Your task to perform on an android device: stop showing notifications on the lock screen Image 0: 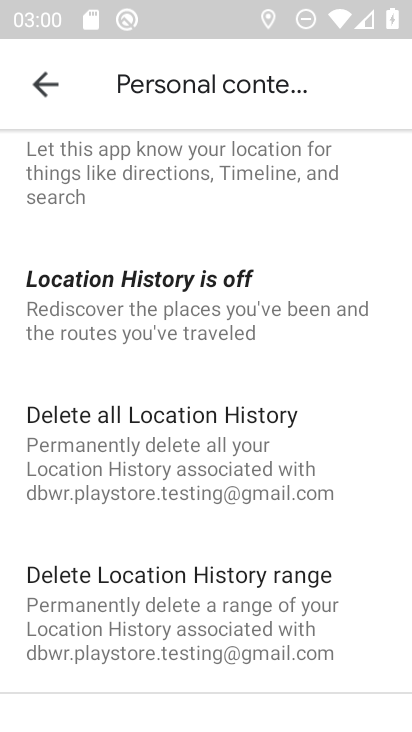
Step 0: press home button
Your task to perform on an android device: stop showing notifications on the lock screen Image 1: 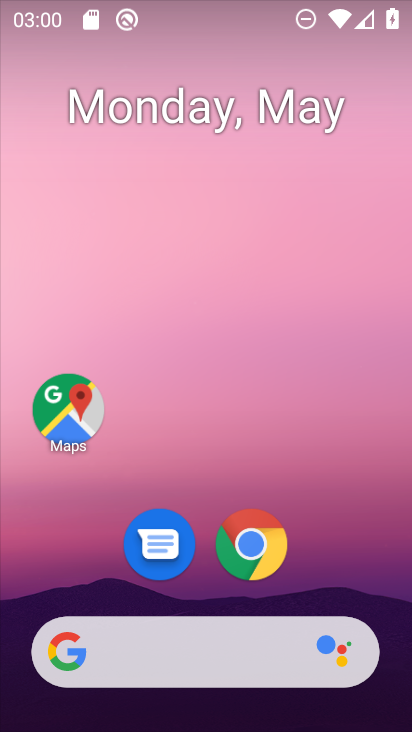
Step 1: drag from (374, 574) to (371, 192)
Your task to perform on an android device: stop showing notifications on the lock screen Image 2: 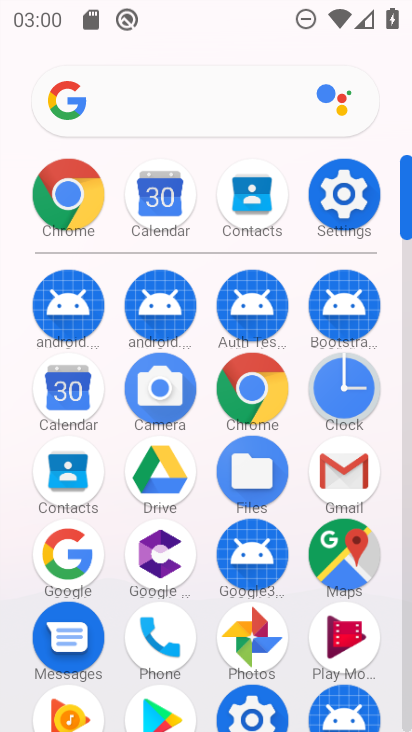
Step 2: click (358, 217)
Your task to perform on an android device: stop showing notifications on the lock screen Image 3: 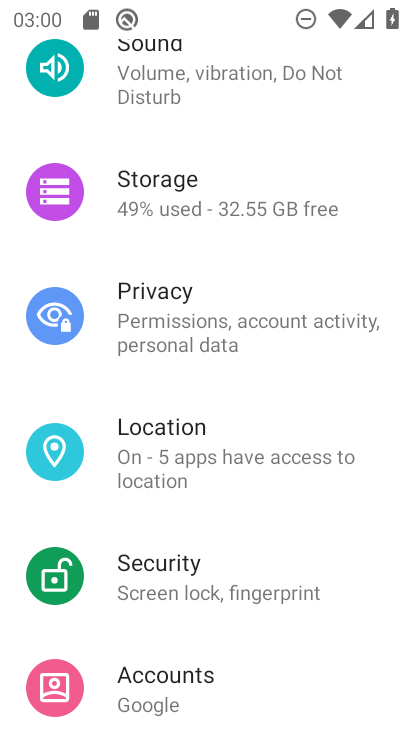
Step 3: drag from (368, 435) to (368, 350)
Your task to perform on an android device: stop showing notifications on the lock screen Image 4: 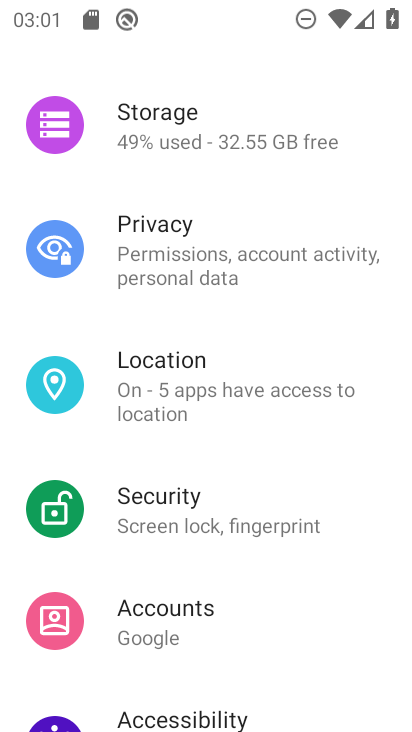
Step 4: drag from (376, 430) to (370, 329)
Your task to perform on an android device: stop showing notifications on the lock screen Image 5: 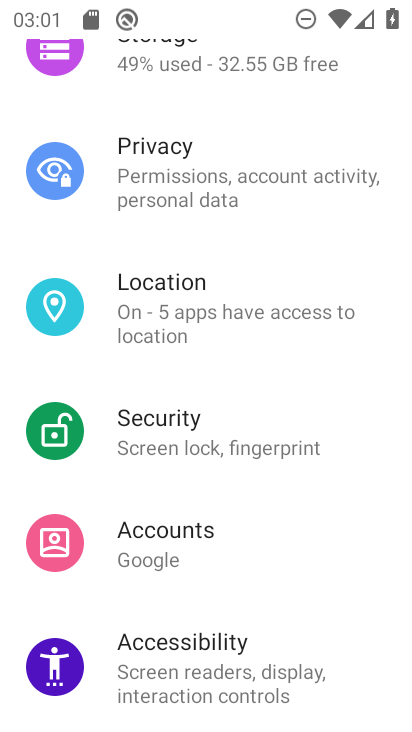
Step 5: drag from (370, 416) to (374, 312)
Your task to perform on an android device: stop showing notifications on the lock screen Image 6: 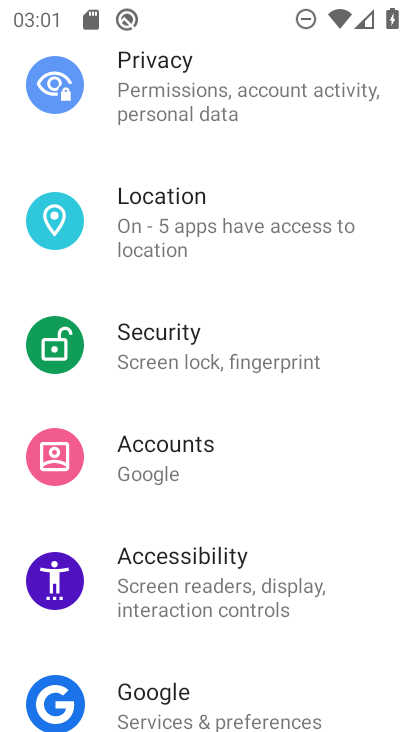
Step 6: drag from (368, 428) to (368, 302)
Your task to perform on an android device: stop showing notifications on the lock screen Image 7: 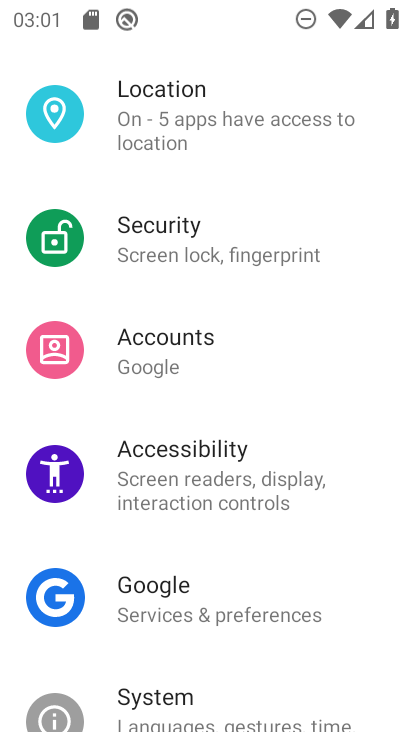
Step 7: drag from (359, 405) to (362, 312)
Your task to perform on an android device: stop showing notifications on the lock screen Image 8: 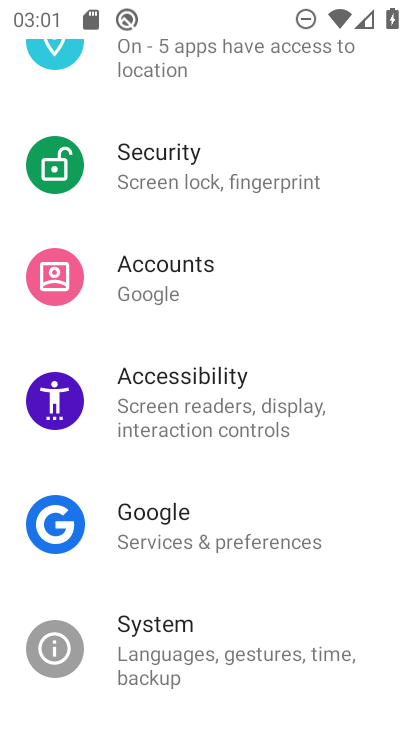
Step 8: drag from (360, 403) to (357, 228)
Your task to perform on an android device: stop showing notifications on the lock screen Image 9: 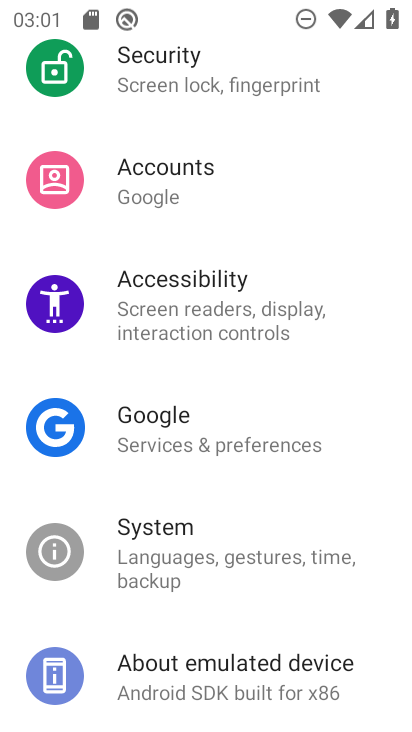
Step 9: drag from (344, 425) to (340, 262)
Your task to perform on an android device: stop showing notifications on the lock screen Image 10: 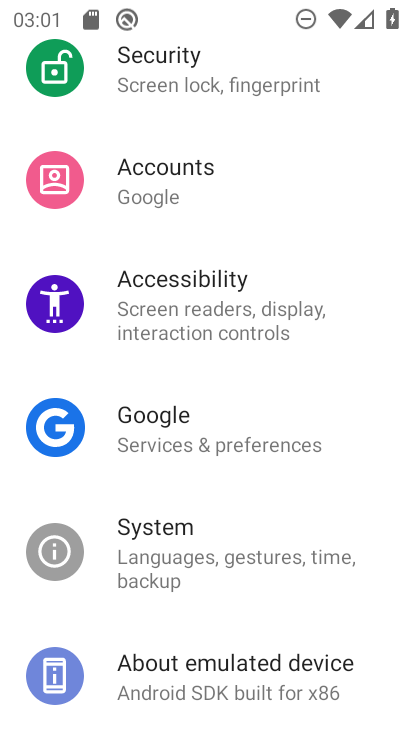
Step 10: drag from (339, 170) to (348, 338)
Your task to perform on an android device: stop showing notifications on the lock screen Image 11: 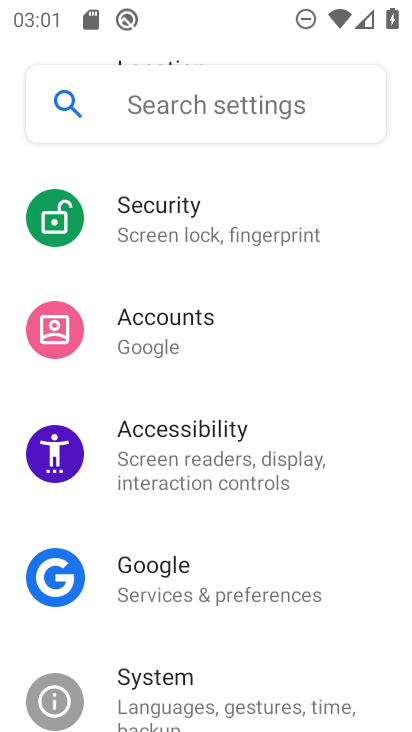
Step 11: drag from (354, 223) to (351, 391)
Your task to perform on an android device: stop showing notifications on the lock screen Image 12: 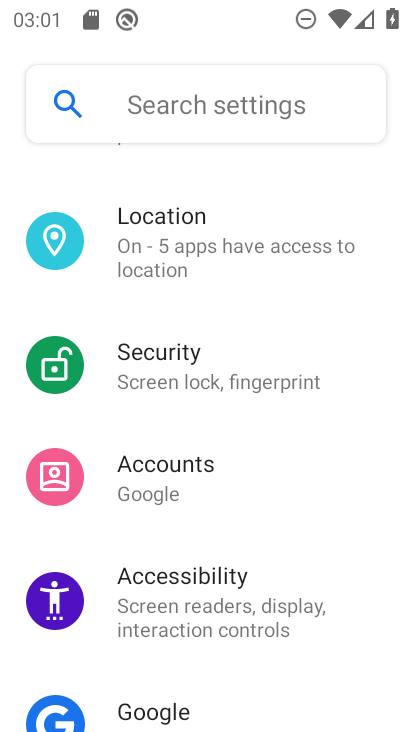
Step 12: drag from (357, 203) to (346, 348)
Your task to perform on an android device: stop showing notifications on the lock screen Image 13: 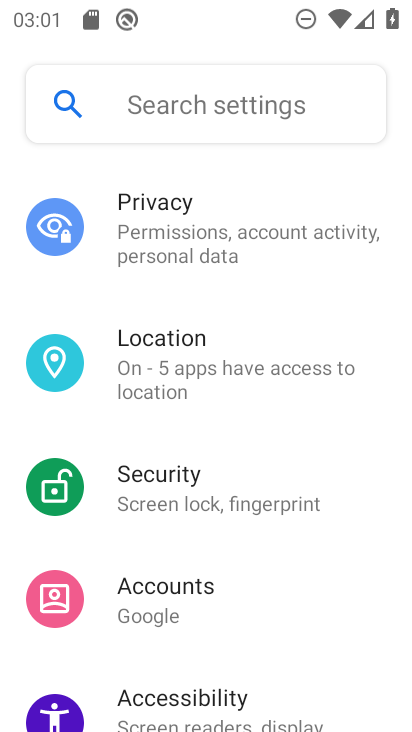
Step 13: drag from (341, 190) to (340, 385)
Your task to perform on an android device: stop showing notifications on the lock screen Image 14: 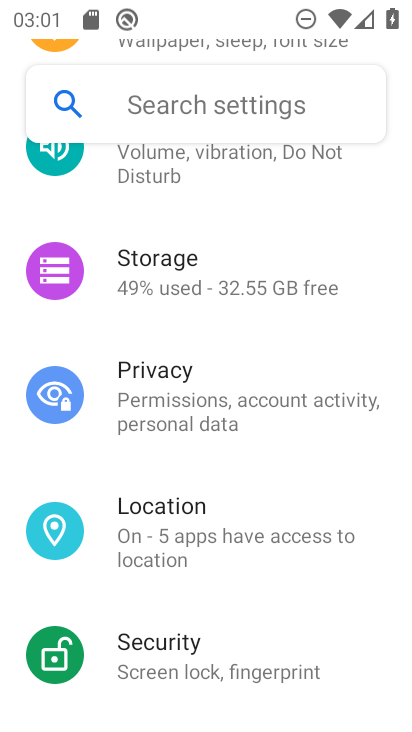
Step 14: drag from (327, 197) to (302, 392)
Your task to perform on an android device: stop showing notifications on the lock screen Image 15: 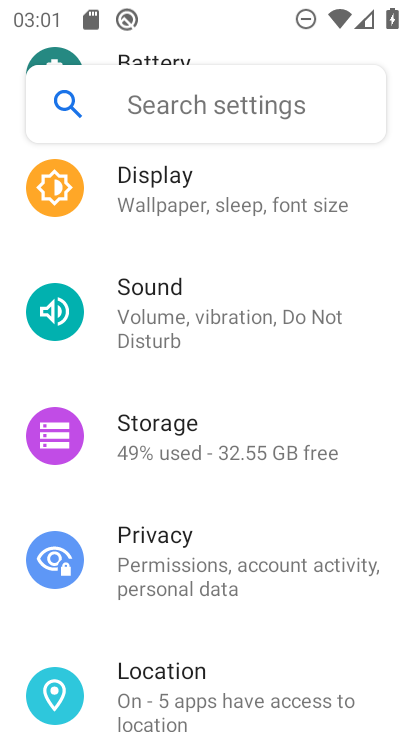
Step 15: drag from (309, 179) to (299, 363)
Your task to perform on an android device: stop showing notifications on the lock screen Image 16: 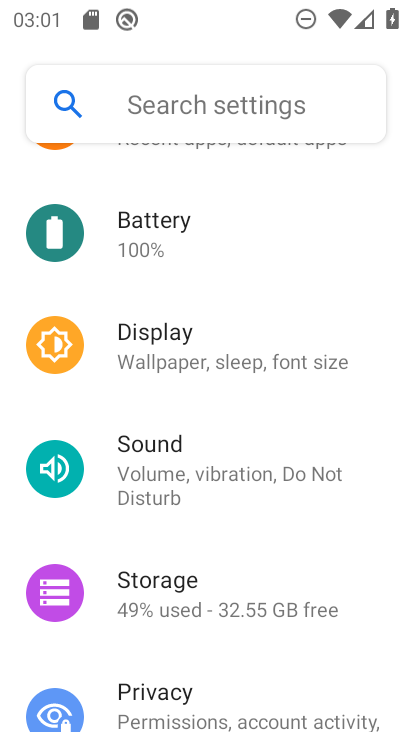
Step 16: drag from (294, 226) to (282, 395)
Your task to perform on an android device: stop showing notifications on the lock screen Image 17: 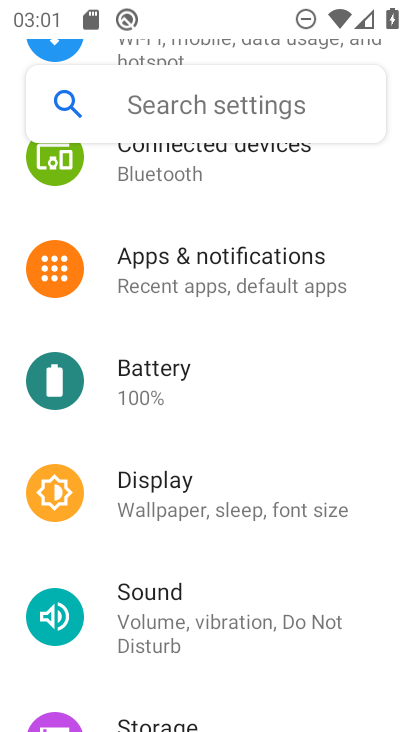
Step 17: drag from (307, 204) to (303, 380)
Your task to perform on an android device: stop showing notifications on the lock screen Image 18: 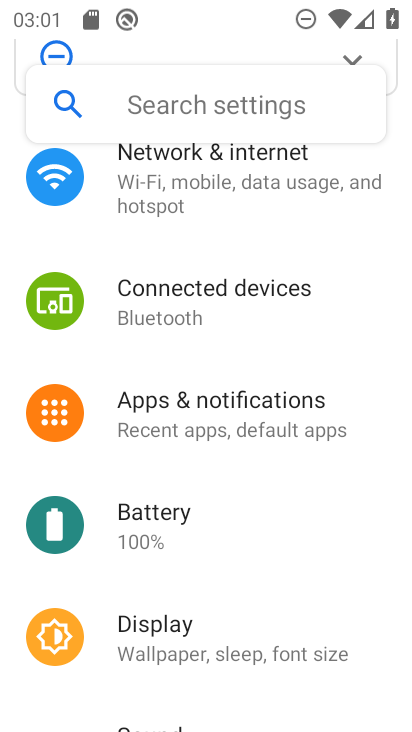
Step 18: click (251, 423)
Your task to perform on an android device: stop showing notifications on the lock screen Image 19: 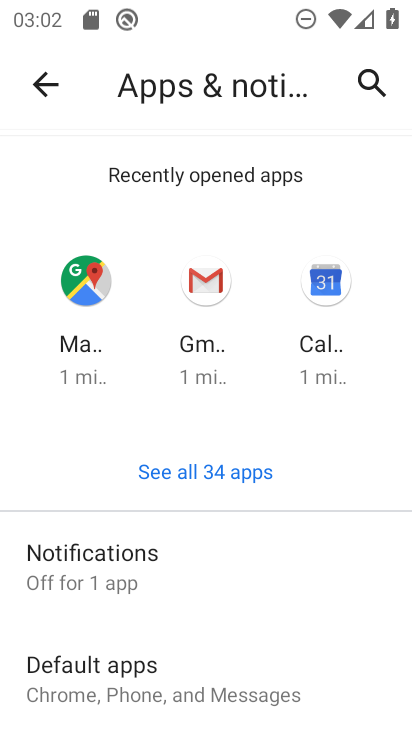
Step 19: click (123, 583)
Your task to perform on an android device: stop showing notifications on the lock screen Image 20: 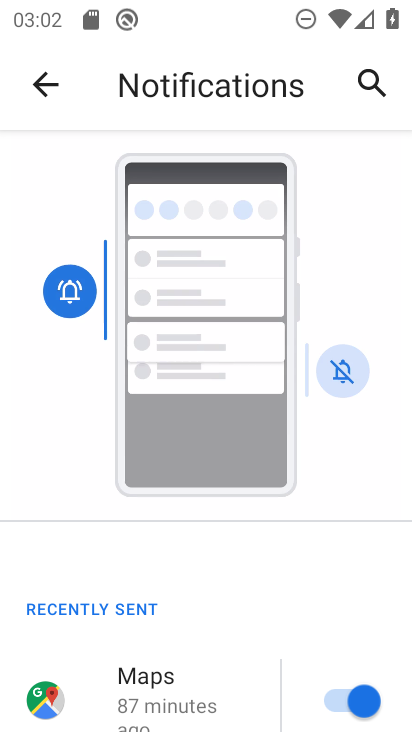
Step 20: drag from (228, 601) to (238, 456)
Your task to perform on an android device: stop showing notifications on the lock screen Image 21: 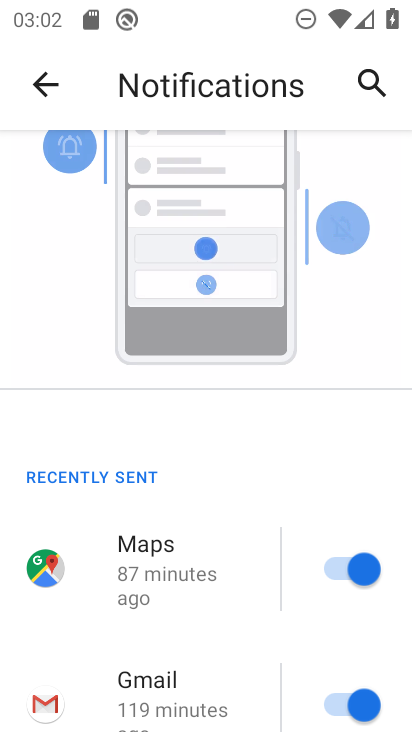
Step 21: drag from (224, 596) to (241, 464)
Your task to perform on an android device: stop showing notifications on the lock screen Image 22: 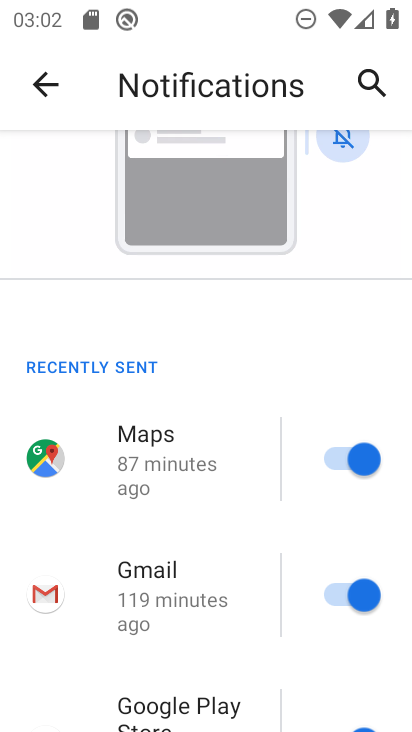
Step 22: drag from (247, 565) to (241, 370)
Your task to perform on an android device: stop showing notifications on the lock screen Image 23: 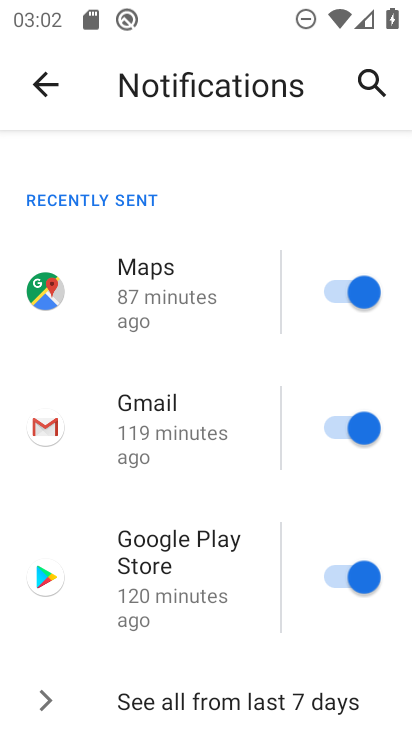
Step 23: drag from (235, 523) to (234, 375)
Your task to perform on an android device: stop showing notifications on the lock screen Image 24: 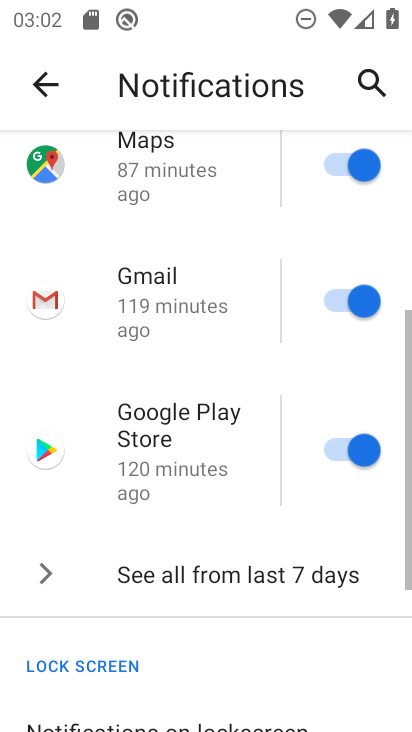
Step 24: drag from (238, 535) to (247, 351)
Your task to perform on an android device: stop showing notifications on the lock screen Image 25: 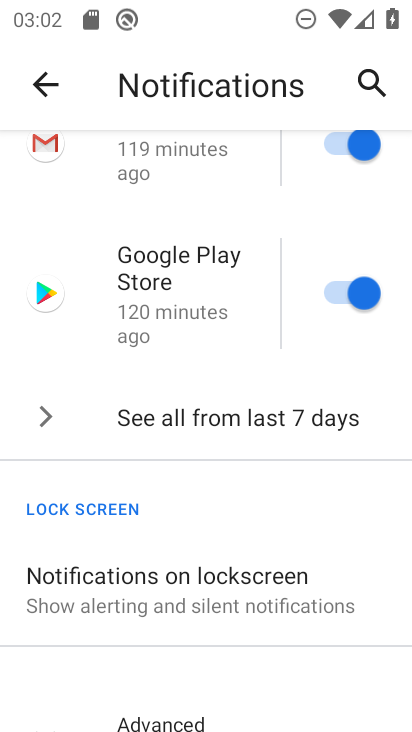
Step 25: drag from (259, 520) to (249, 383)
Your task to perform on an android device: stop showing notifications on the lock screen Image 26: 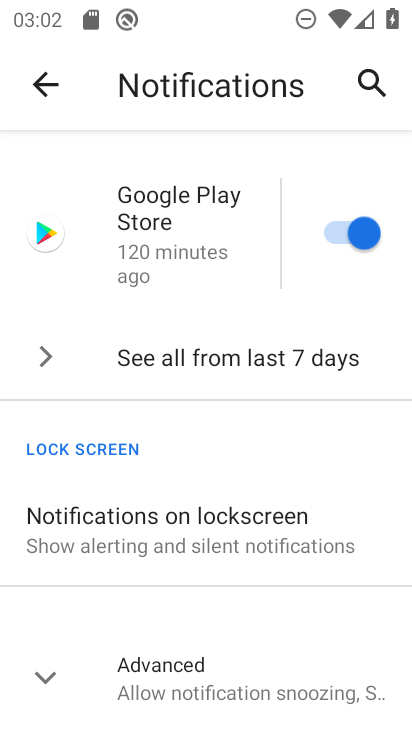
Step 26: click (214, 522)
Your task to perform on an android device: stop showing notifications on the lock screen Image 27: 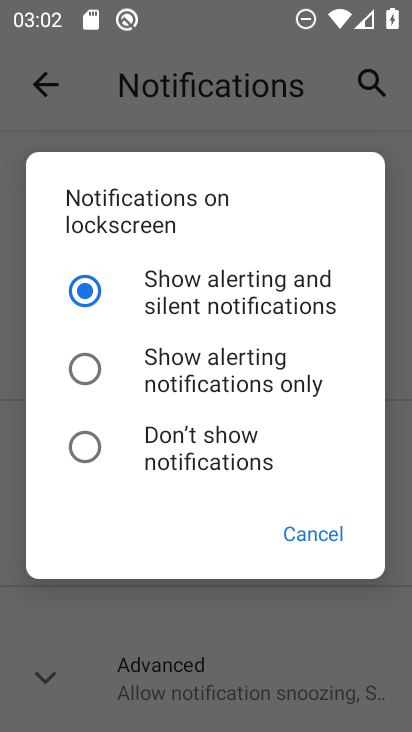
Step 27: click (166, 450)
Your task to perform on an android device: stop showing notifications on the lock screen Image 28: 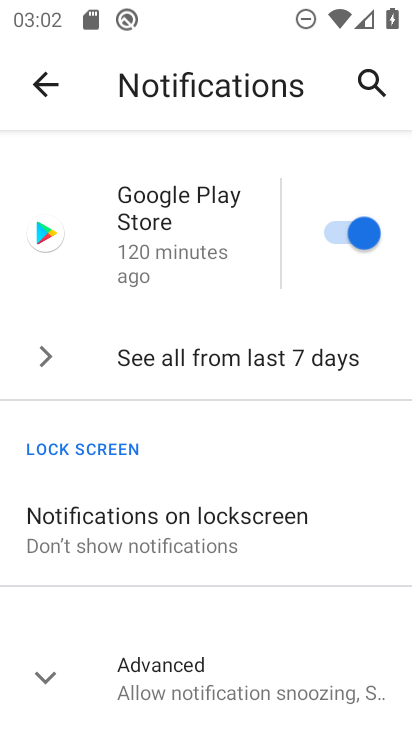
Step 28: task complete